Your task to perform on an android device: Go to settings Image 0: 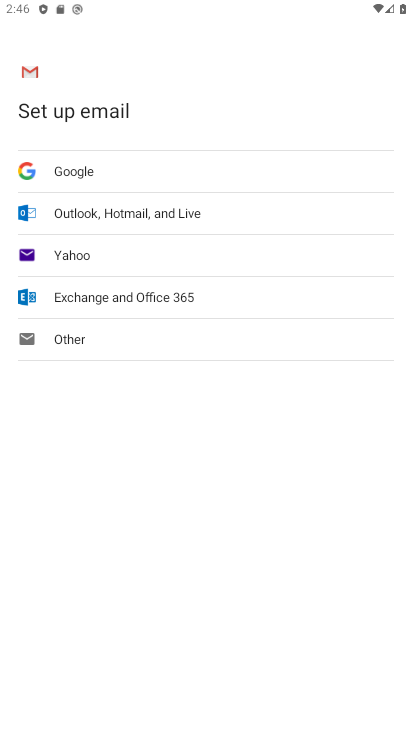
Step 0: press home button
Your task to perform on an android device: Go to settings Image 1: 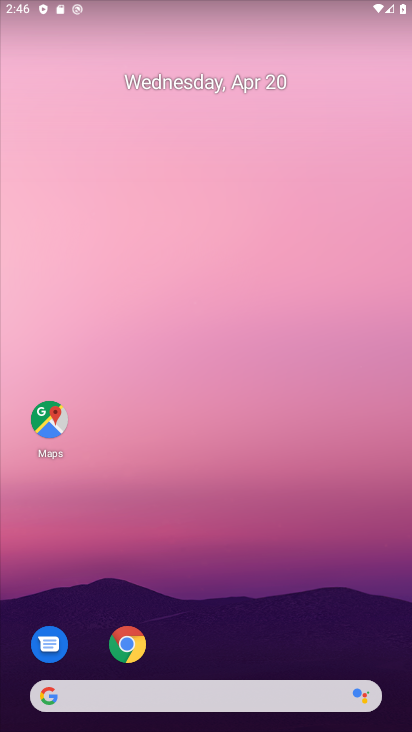
Step 1: drag from (192, 548) to (229, 100)
Your task to perform on an android device: Go to settings Image 2: 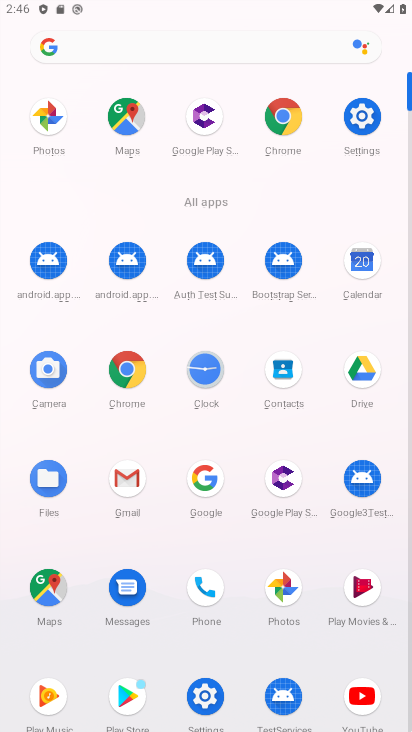
Step 2: click (358, 123)
Your task to perform on an android device: Go to settings Image 3: 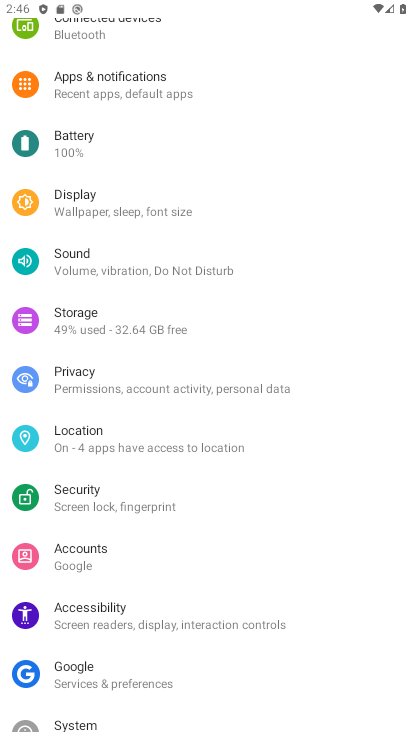
Step 3: task complete